Your task to perform on an android device: What's on my calendar tomorrow? Image 0: 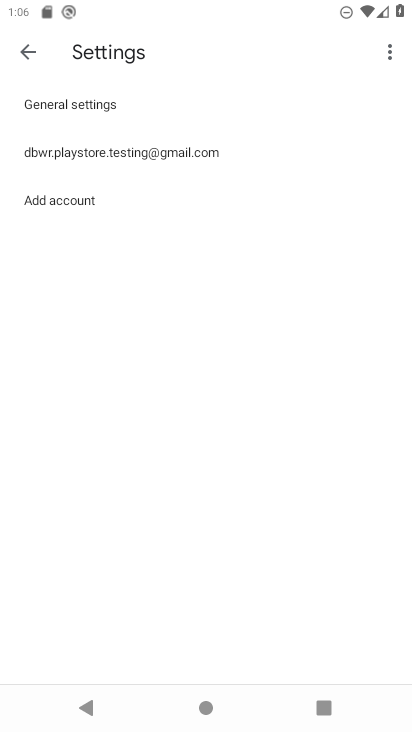
Step 0: press home button
Your task to perform on an android device: What's on my calendar tomorrow? Image 1: 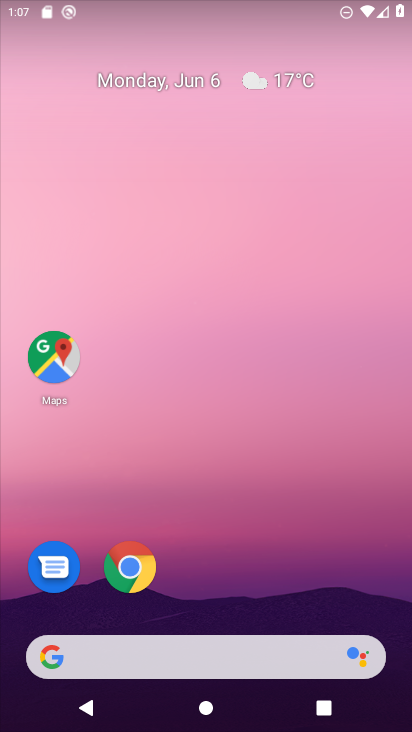
Step 1: drag from (237, 685) to (237, 64)
Your task to perform on an android device: What's on my calendar tomorrow? Image 2: 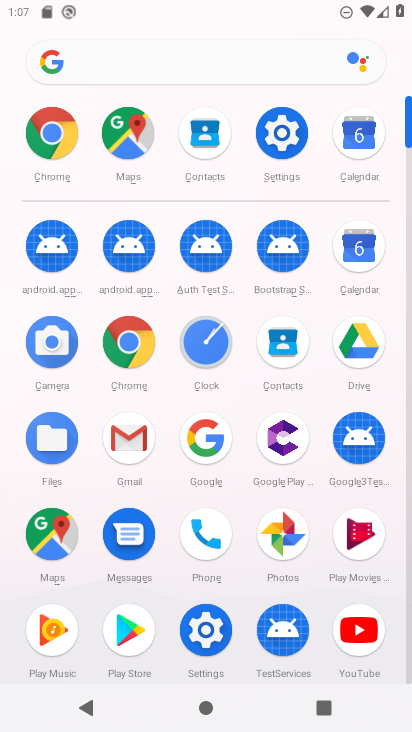
Step 2: click (359, 234)
Your task to perform on an android device: What's on my calendar tomorrow? Image 3: 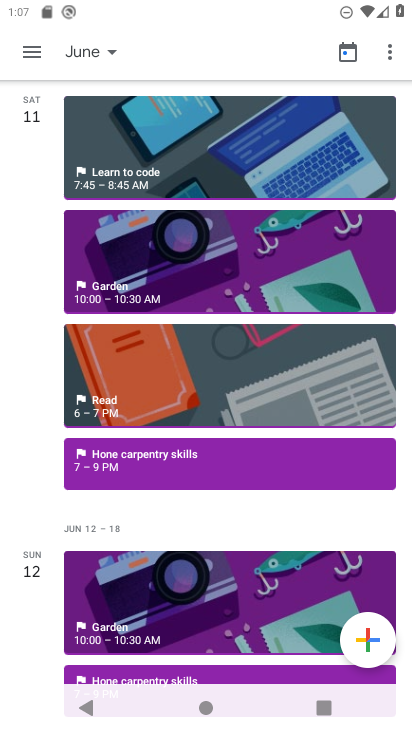
Step 3: click (110, 43)
Your task to perform on an android device: What's on my calendar tomorrow? Image 4: 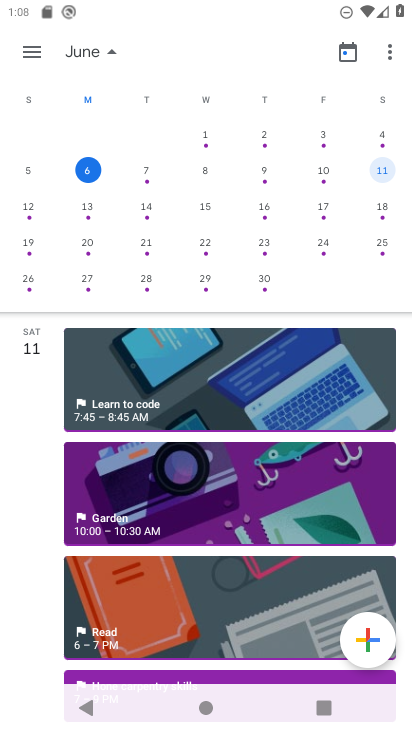
Step 4: click (144, 170)
Your task to perform on an android device: What's on my calendar tomorrow? Image 5: 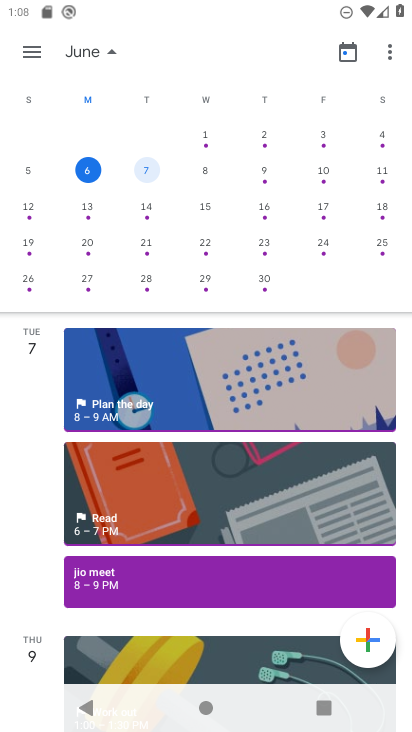
Step 5: click (144, 170)
Your task to perform on an android device: What's on my calendar tomorrow? Image 6: 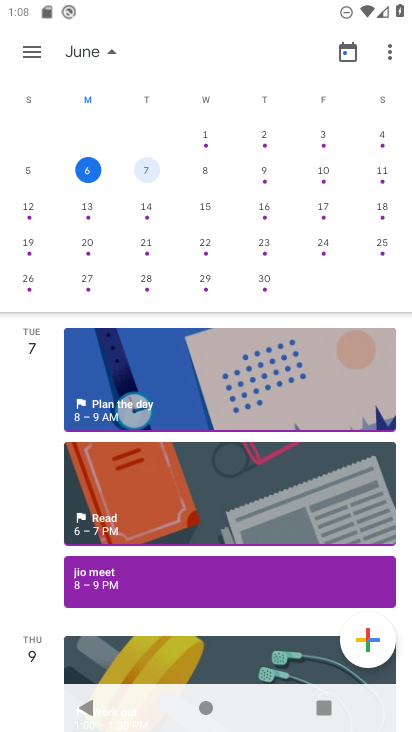
Step 6: click (144, 170)
Your task to perform on an android device: What's on my calendar tomorrow? Image 7: 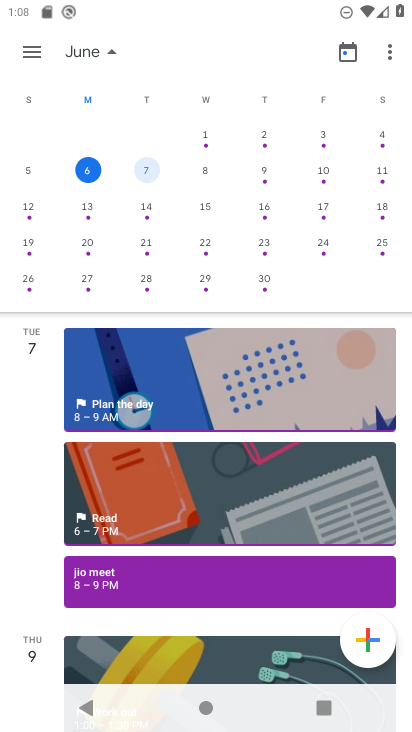
Step 7: click (144, 170)
Your task to perform on an android device: What's on my calendar tomorrow? Image 8: 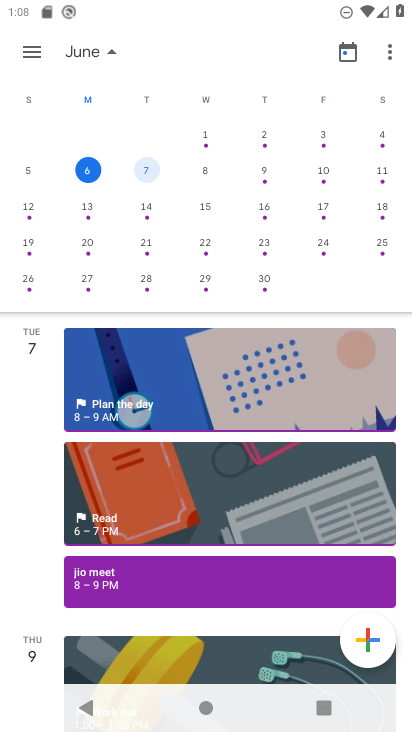
Step 8: click (111, 49)
Your task to perform on an android device: What's on my calendar tomorrow? Image 9: 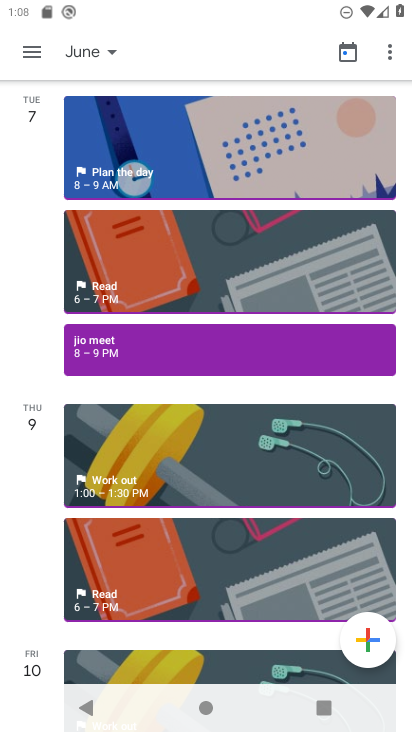
Step 9: task complete